Your task to perform on an android device: open chrome privacy settings Image 0: 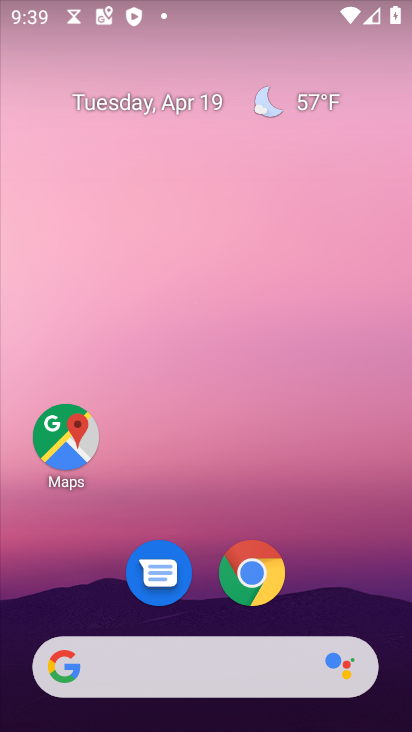
Step 0: click (259, 573)
Your task to perform on an android device: open chrome privacy settings Image 1: 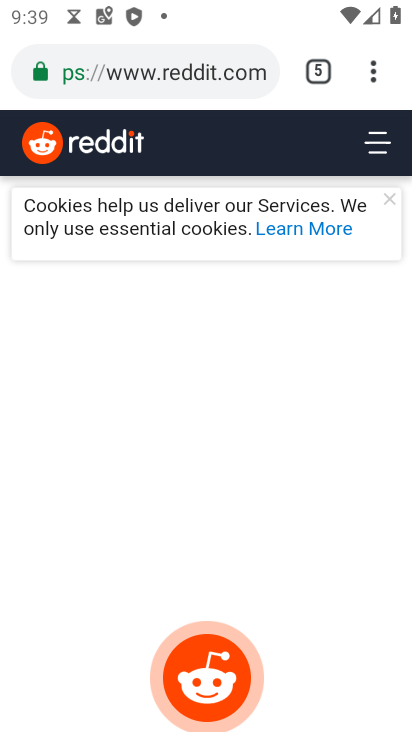
Step 1: click (374, 69)
Your task to perform on an android device: open chrome privacy settings Image 2: 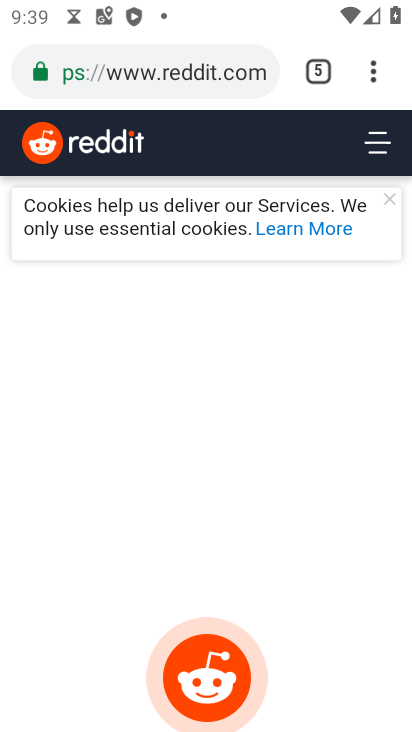
Step 2: click (374, 72)
Your task to perform on an android device: open chrome privacy settings Image 3: 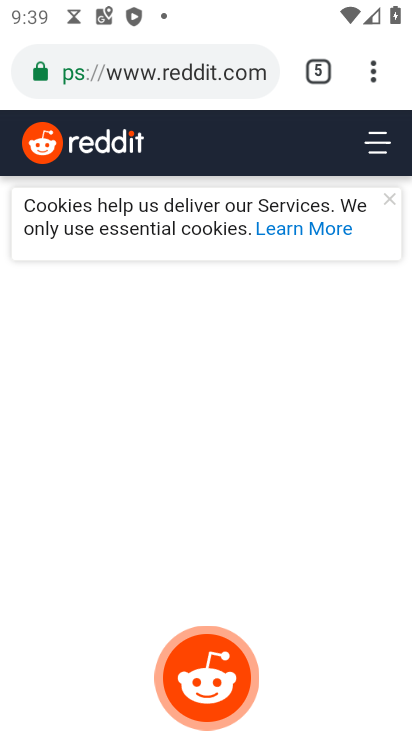
Step 3: click (374, 72)
Your task to perform on an android device: open chrome privacy settings Image 4: 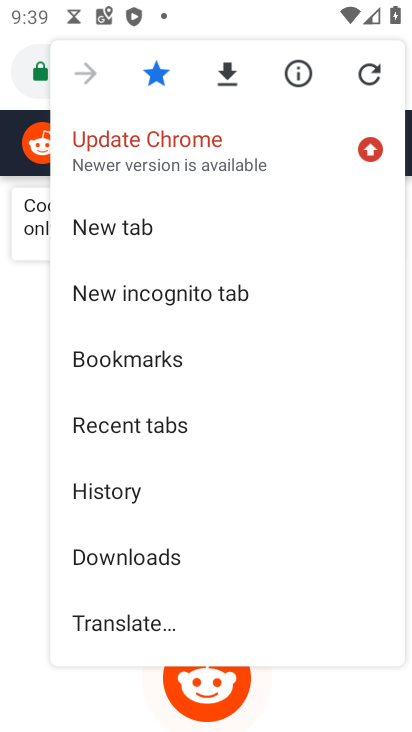
Step 4: drag from (231, 597) to (229, 198)
Your task to perform on an android device: open chrome privacy settings Image 5: 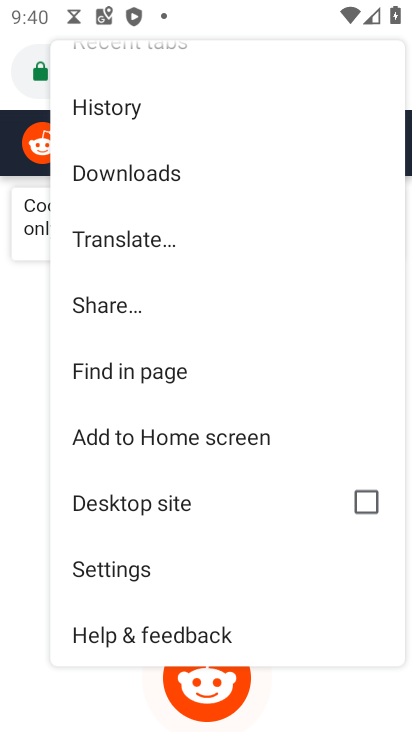
Step 5: click (124, 568)
Your task to perform on an android device: open chrome privacy settings Image 6: 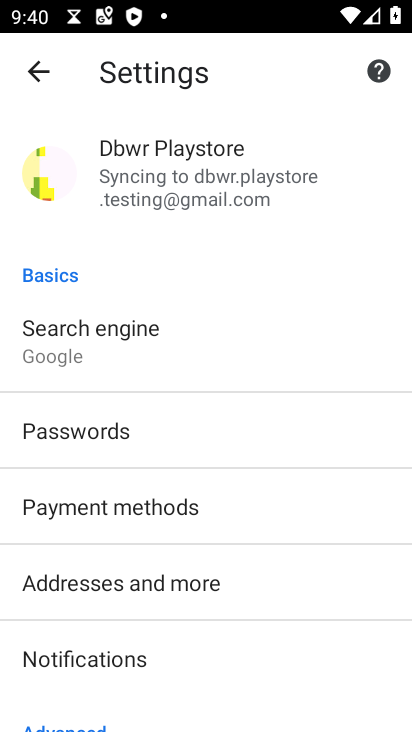
Step 6: drag from (308, 619) to (283, 164)
Your task to perform on an android device: open chrome privacy settings Image 7: 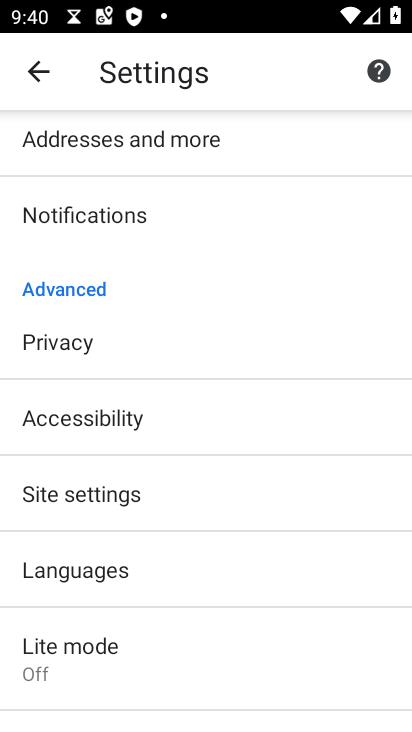
Step 7: click (85, 336)
Your task to perform on an android device: open chrome privacy settings Image 8: 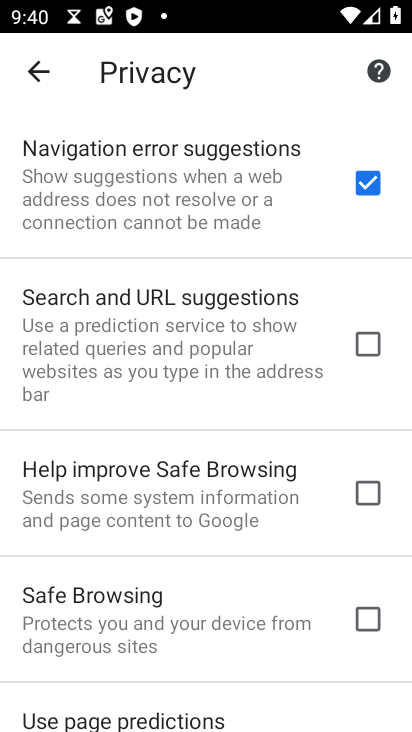
Step 8: task complete